Your task to perform on an android device: toggle airplane mode Image 0: 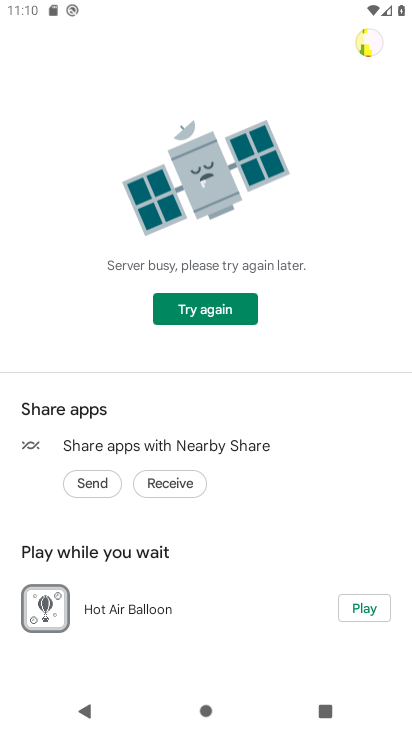
Step 0: press home button
Your task to perform on an android device: toggle airplane mode Image 1: 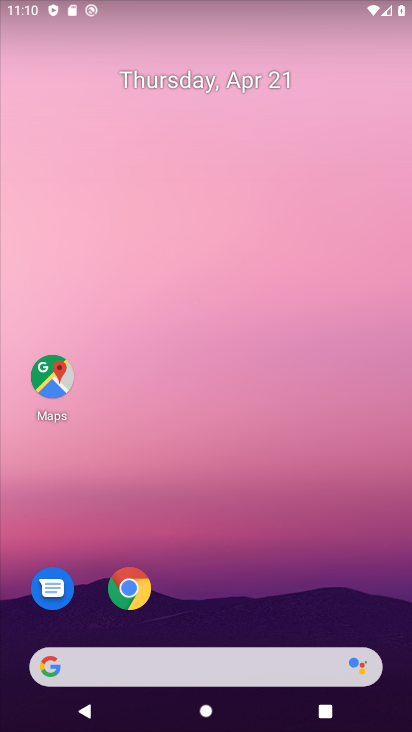
Step 1: drag from (190, 571) to (201, 11)
Your task to perform on an android device: toggle airplane mode Image 2: 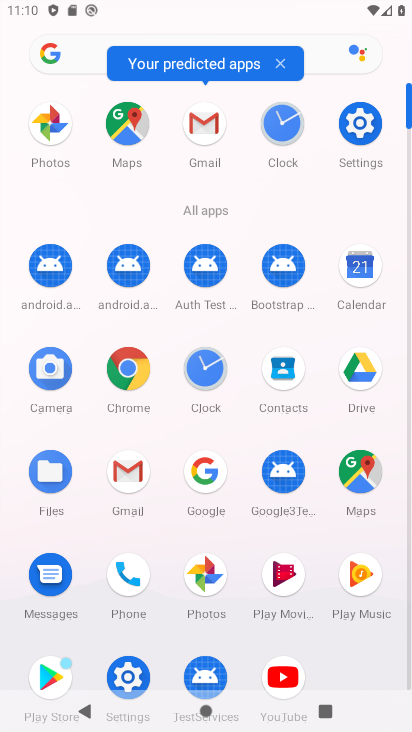
Step 2: click (362, 133)
Your task to perform on an android device: toggle airplane mode Image 3: 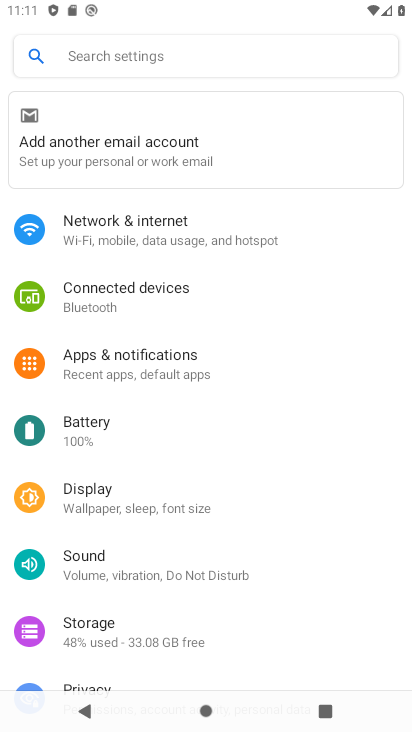
Step 3: click (217, 228)
Your task to perform on an android device: toggle airplane mode Image 4: 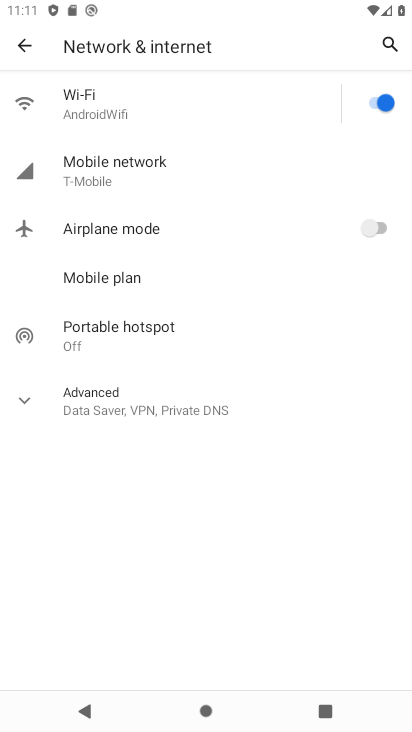
Step 4: click (380, 226)
Your task to perform on an android device: toggle airplane mode Image 5: 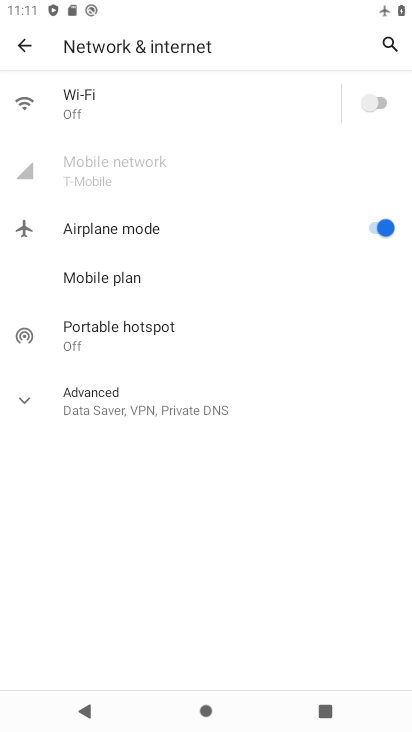
Step 5: task complete